Your task to perform on an android device: add a label to a message in the gmail app Image 0: 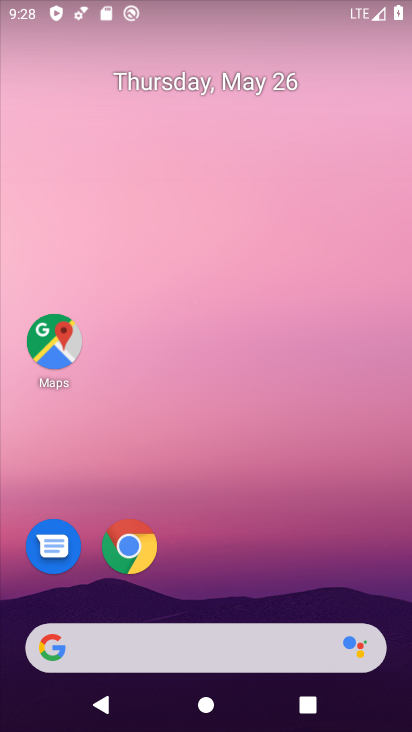
Step 0: drag from (371, 610) to (307, 181)
Your task to perform on an android device: add a label to a message in the gmail app Image 1: 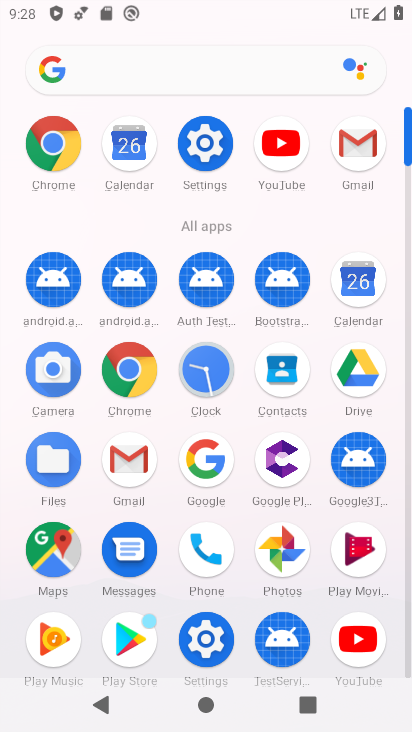
Step 1: click (125, 462)
Your task to perform on an android device: add a label to a message in the gmail app Image 2: 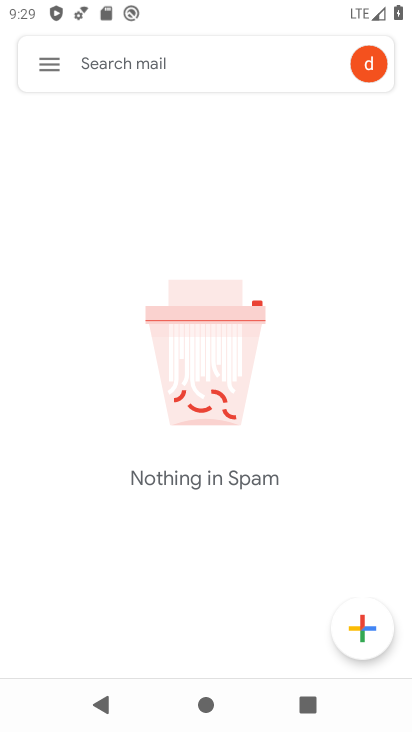
Step 2: click (58, 70)
Your task to perform on an android device: add a label to a message in the gmail app Image 3: 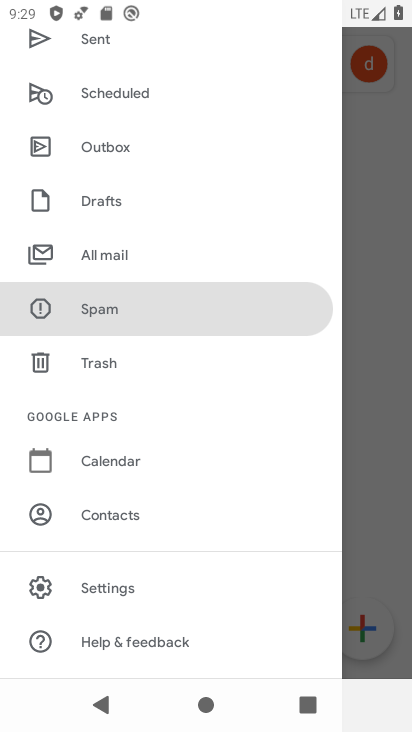
Step 3: click (112, 250)
Your task to perform on an android device: add a label to a message in the gmail app Image 4: 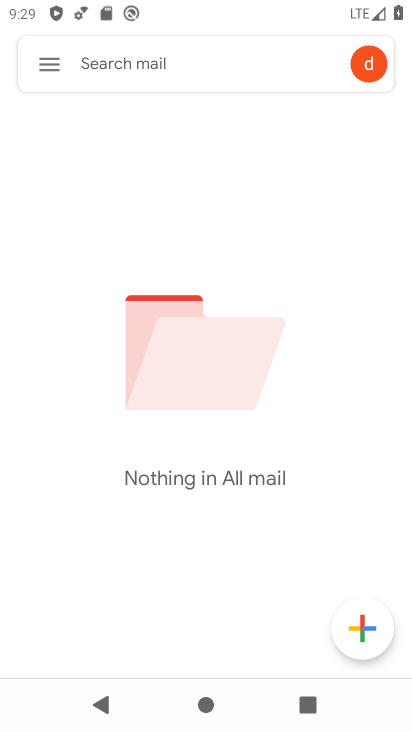
Step 4: task complete